Your task to perform on an android device: Go to privacy settings Image 0: 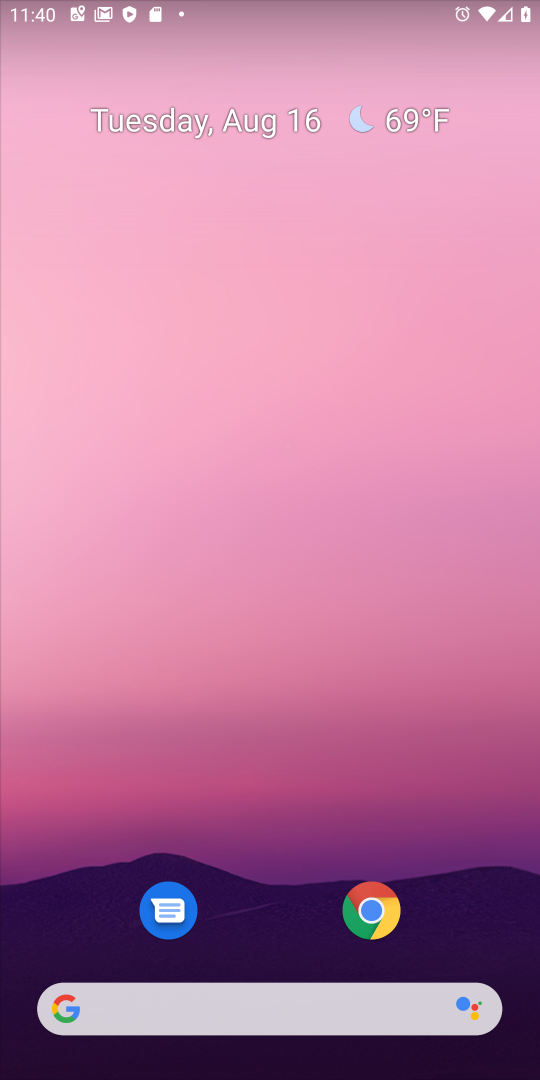
Step 0: drag from (448, 825) to (416, 214)
Your task to perform on an android device: Go to privacy settings Image 1: 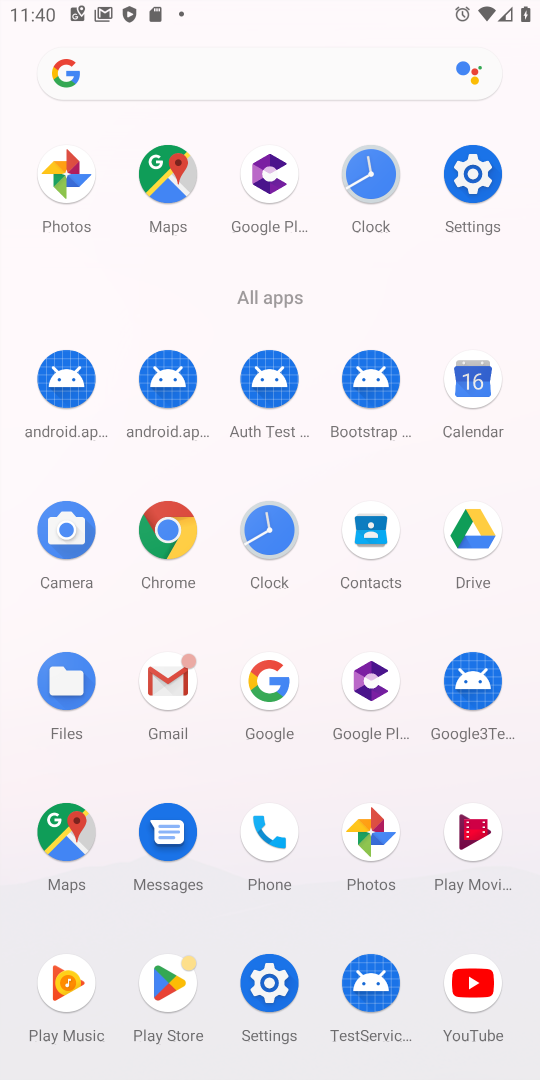
Step 1: click (274, 973)
Your task to perform on an android device: Go to privacy settings Image 2: 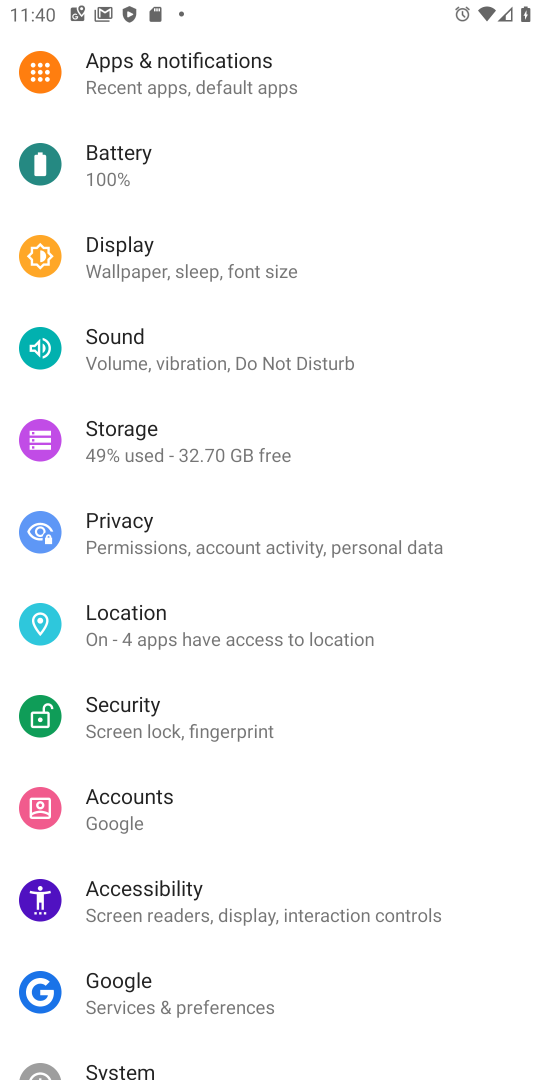
Step 2: click (242, 549)
Your task to perform on an android device: Go to privacy settings Image 3: 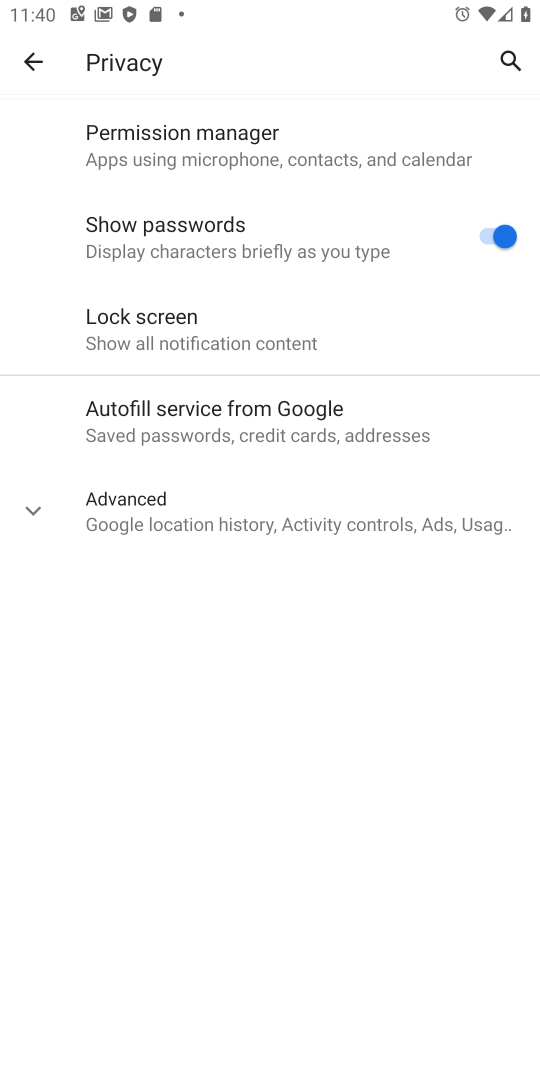
Step 3: task complete